Your task to perform on an android device: Open notification settings Image 0: 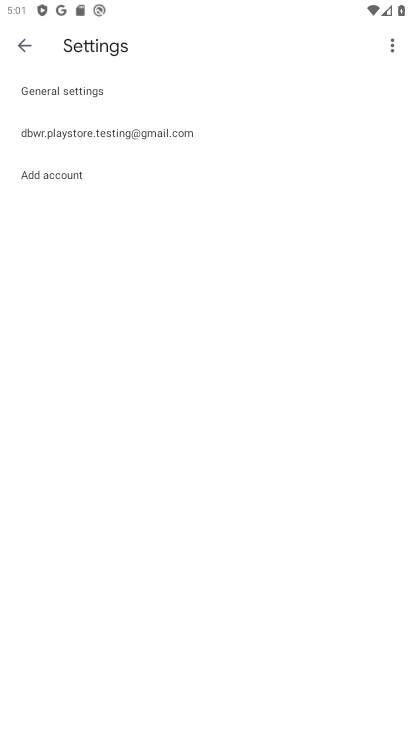
Step 0: press home button
Your task to perform on an android device: Open notification settings Image 1: 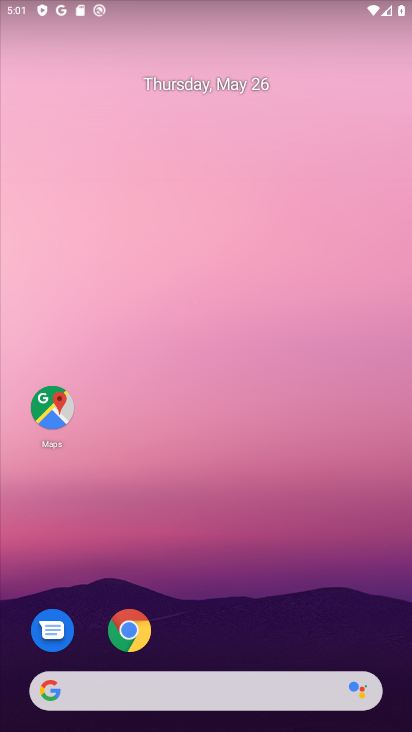
Step 1: drag from (200, 652) to (297, 115)
Your task to perform on an android device: Open notification settings Image 2: 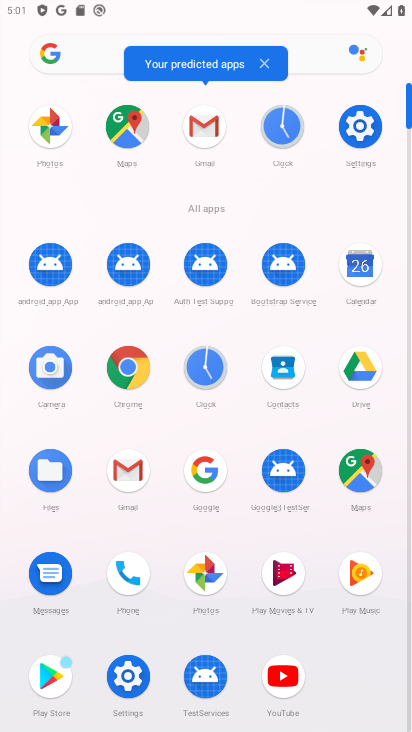
Step 2: drag from (131, 626) to (203, 337)
Your task to perform on an android device: Open notification settings Image 3: 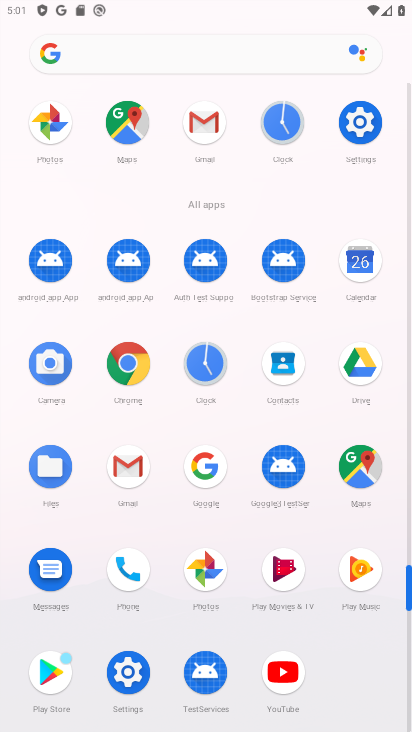
Step 3: click (131, 668)
Your task to perform on an android device: Open notification settings Image 4: 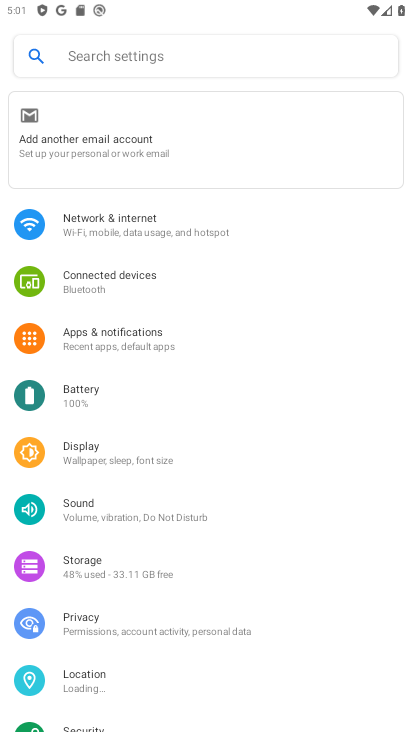
Step 4: click (159, 353)
Your task to perform on an android device: Open notification settings Image 5: 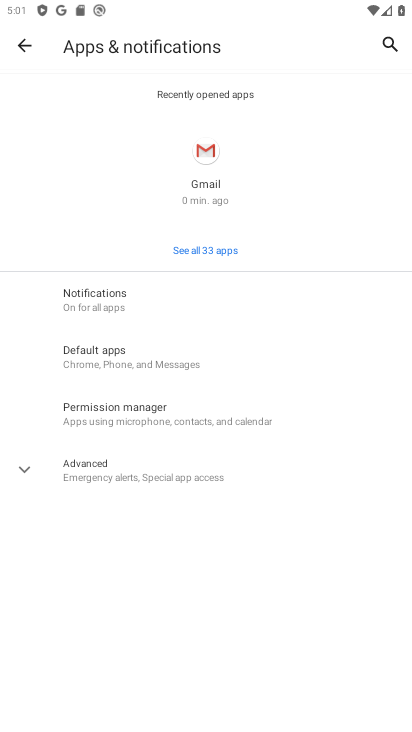
Step 5: click (147, 315)
Your task to perform on an android device: Open notification settings Image 6: 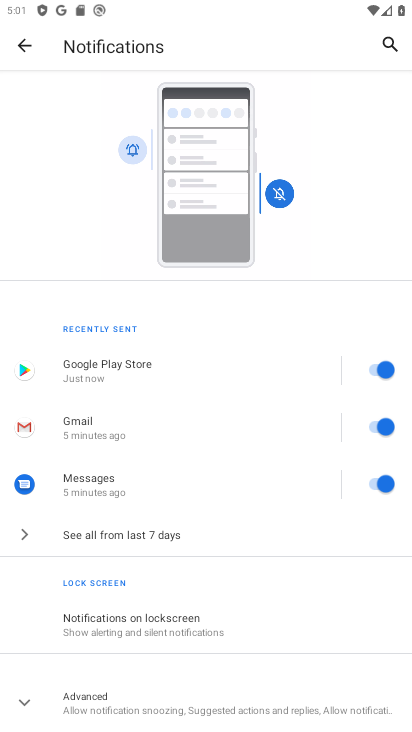
Step 6: task complete